Your task to perform on an android device: delete the emails in spam in the gmail app Image 0: 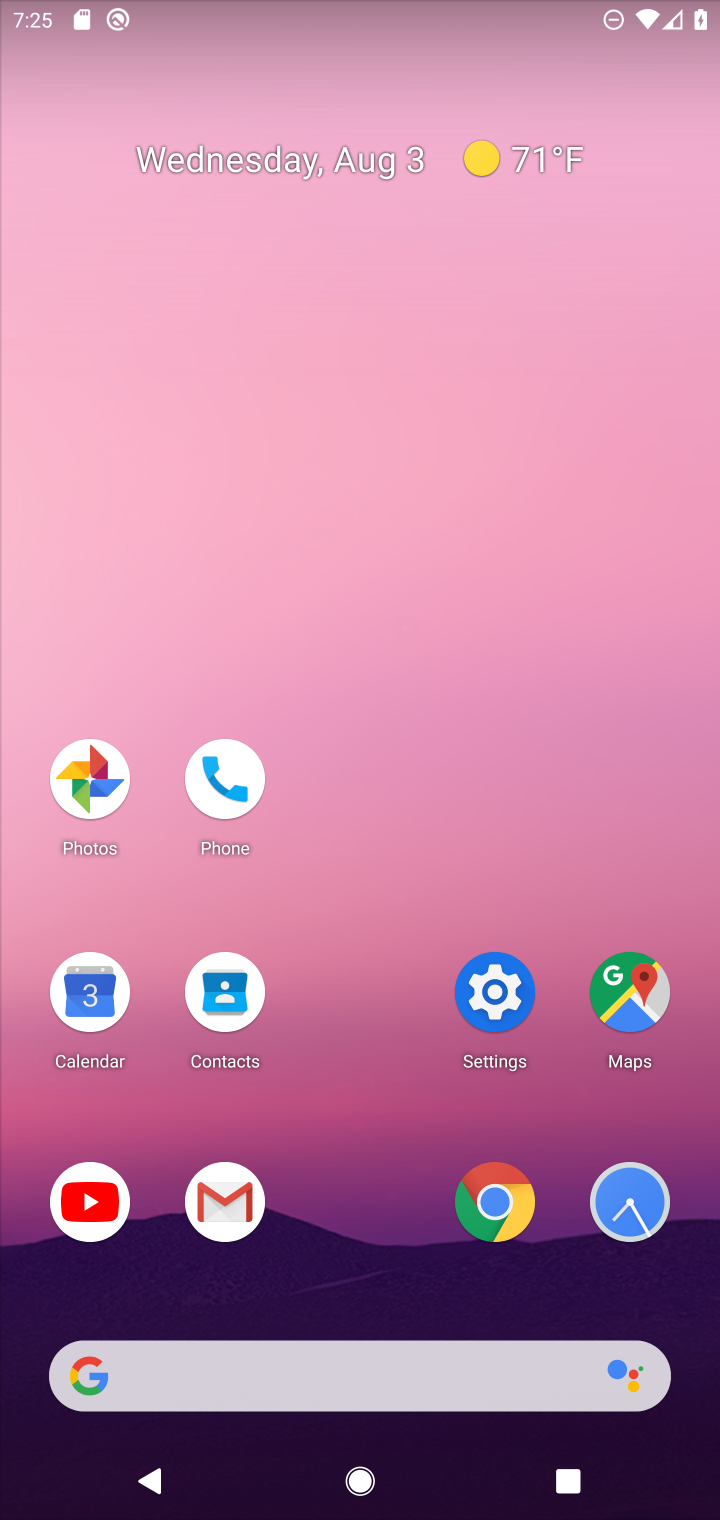
Step 0: click (229, 1204)
Your task to perform on an android device: delete the emails in spam in the gmail app Image 1: 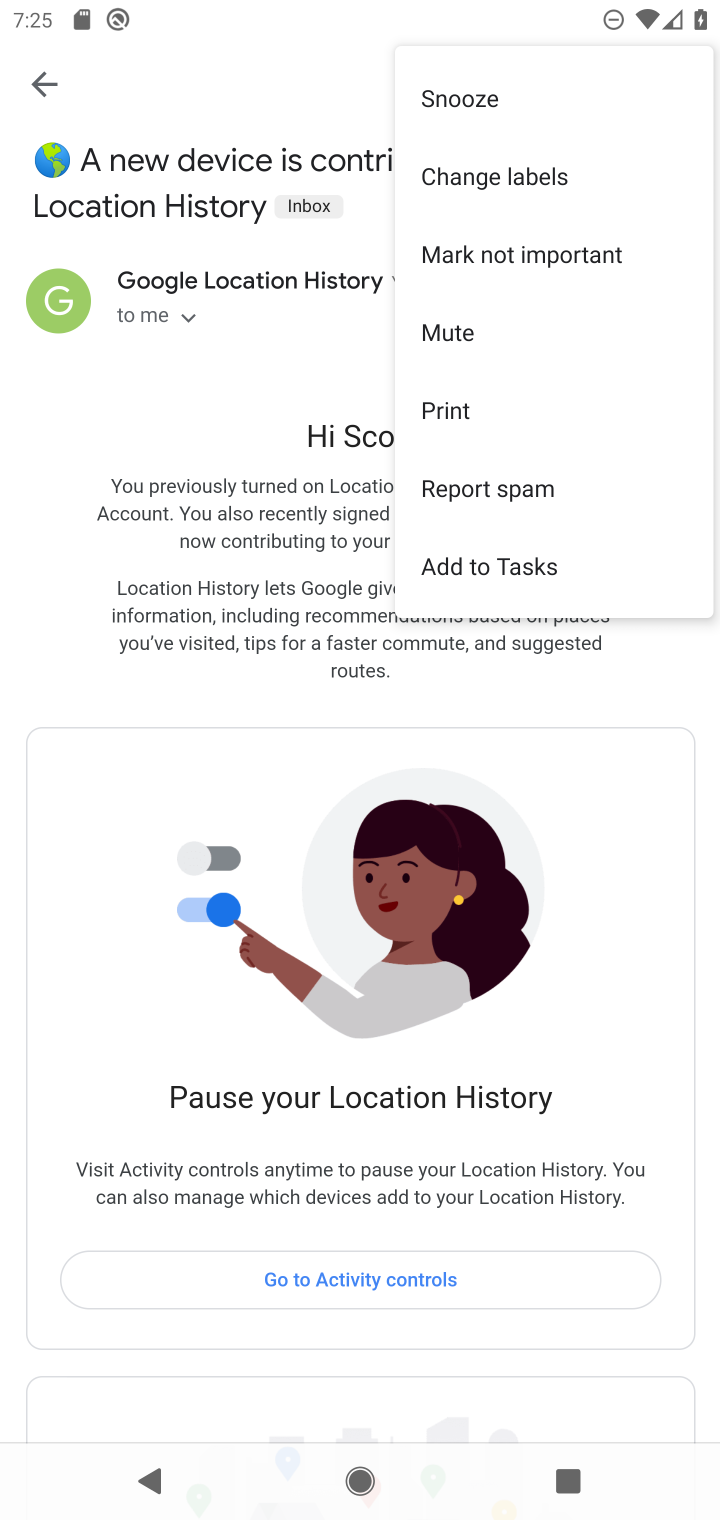
Step 1: click (24, 74)
Your task to perform on an android device: delete the emails in spam in the gmail app Image 2: 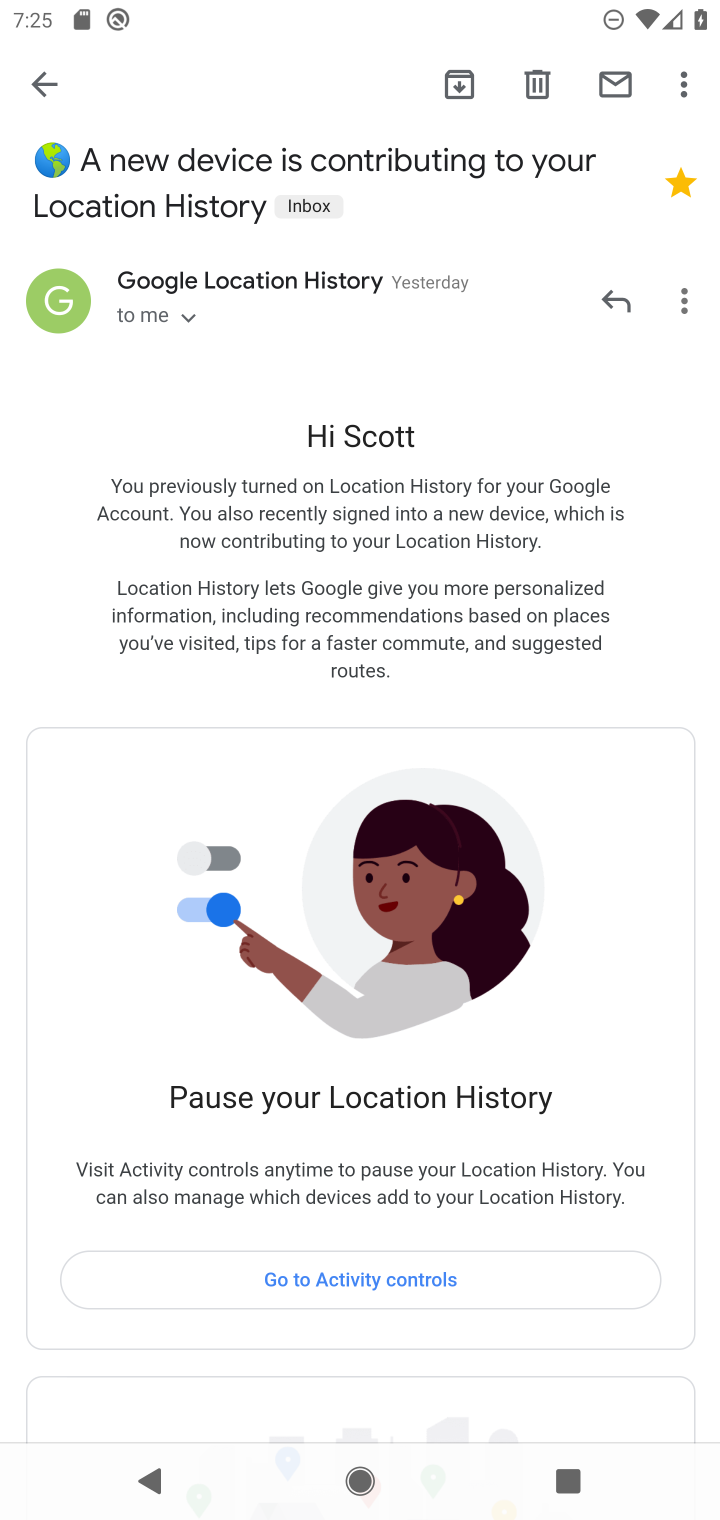
Step 2: click (36, 77)
Your task to perform on an android device: delete the emails in spam in the gmail app Image 3: 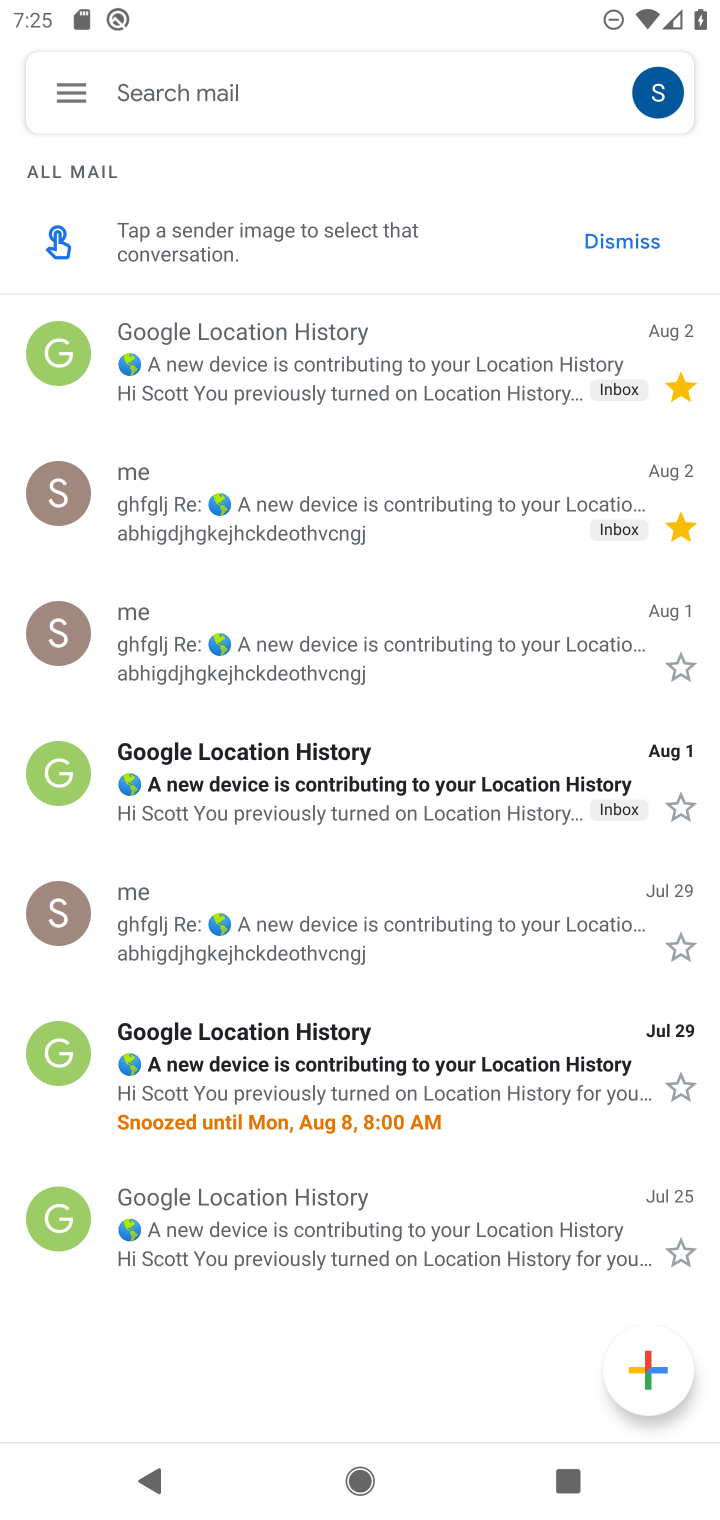
Step 3: click (61, 83)
Your task to perform on an android device: delete the emails in spam in the gmail app Image 4: 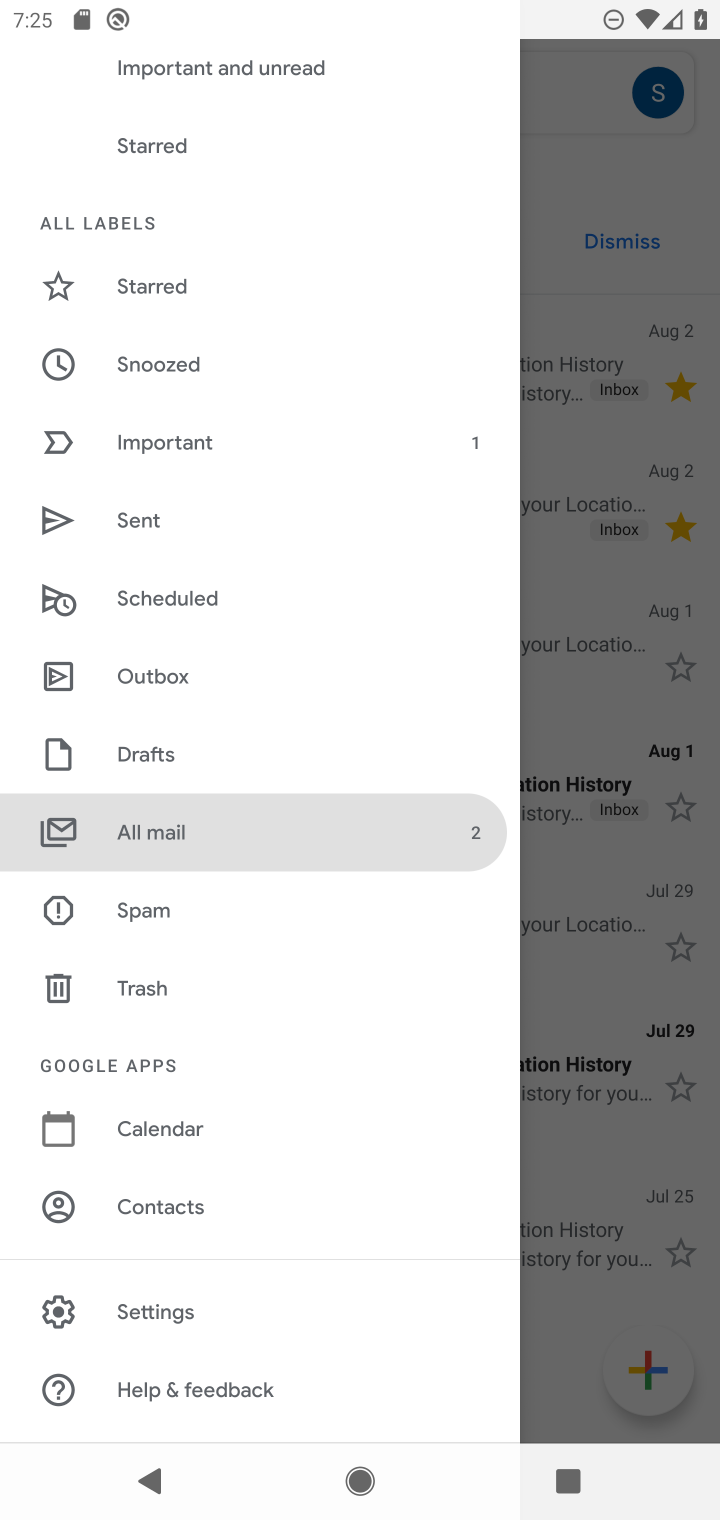
Step 4: click (158, 917)
Your task to perform on an android device: delete the emails in spam in the gmail app Image 5: 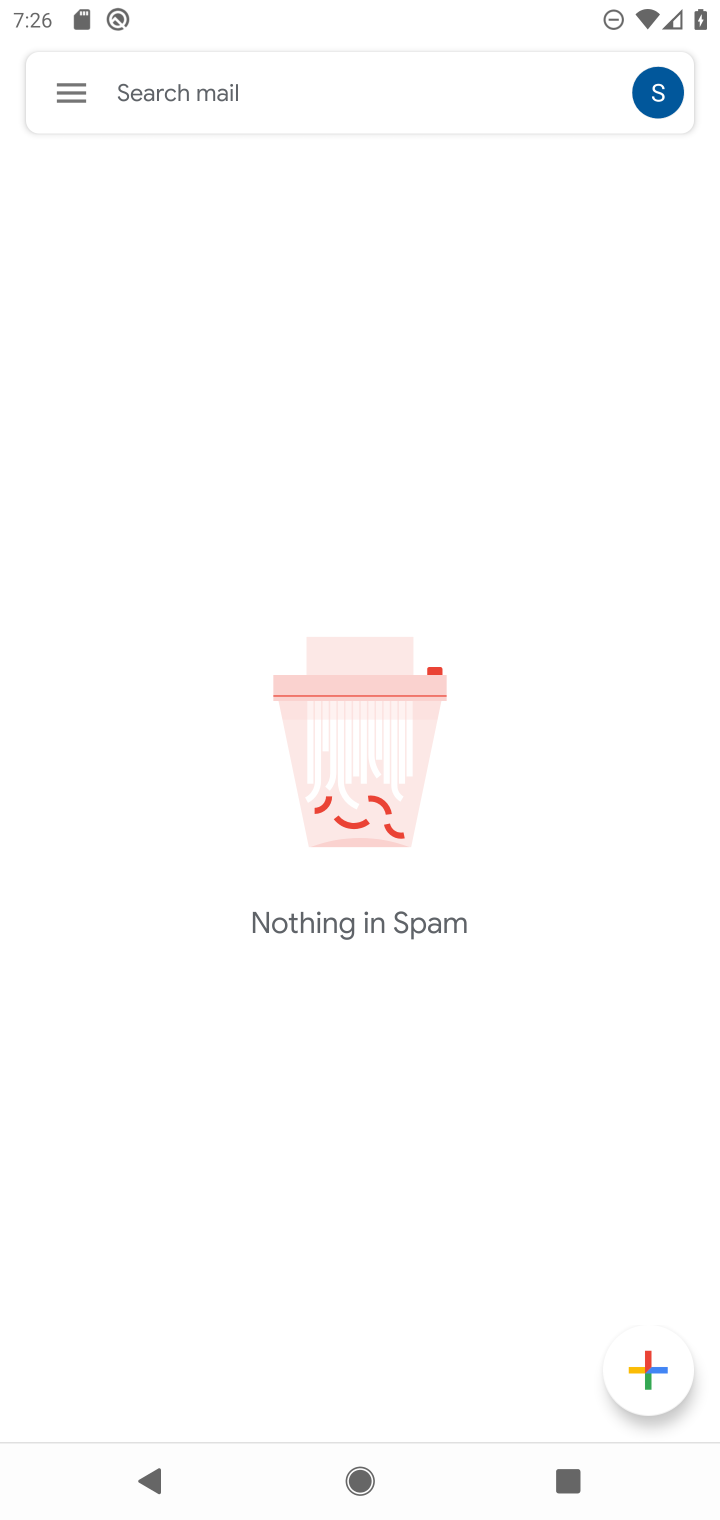
Step 5: task complete